Your task to perform on an android device: check android version Image 0: 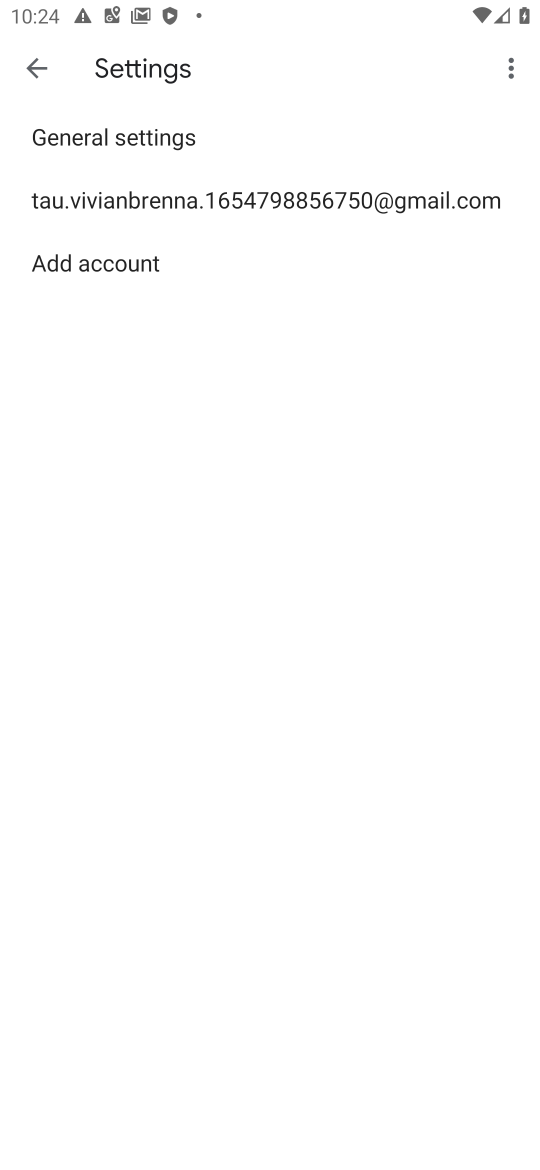
Step 0: press back button
Your task to perform on an android device: check android version Image 1: 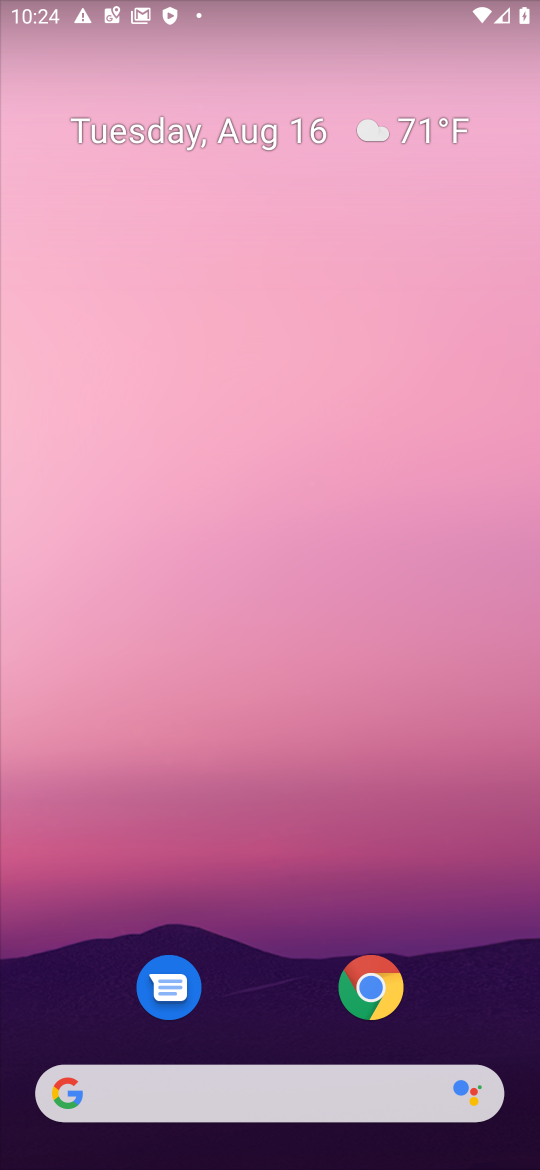
Step 1: drag from (49, 1136) to (238, 494)
Your task to perform on an android device: check android version Image 2: 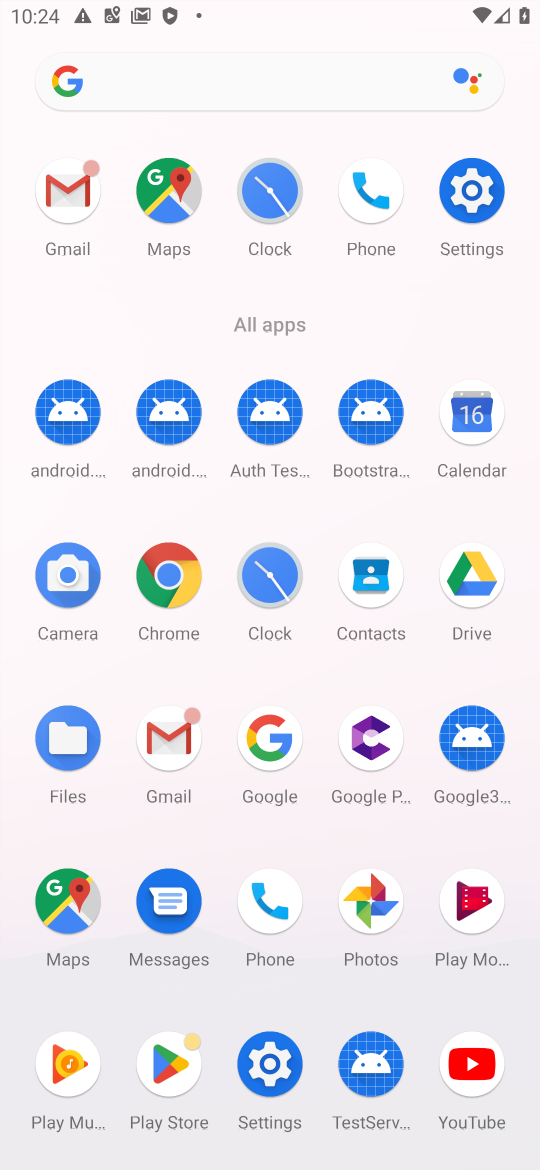
Step 2: click (266, 1060)
Your task to perform on an android device: check android version Image 3: 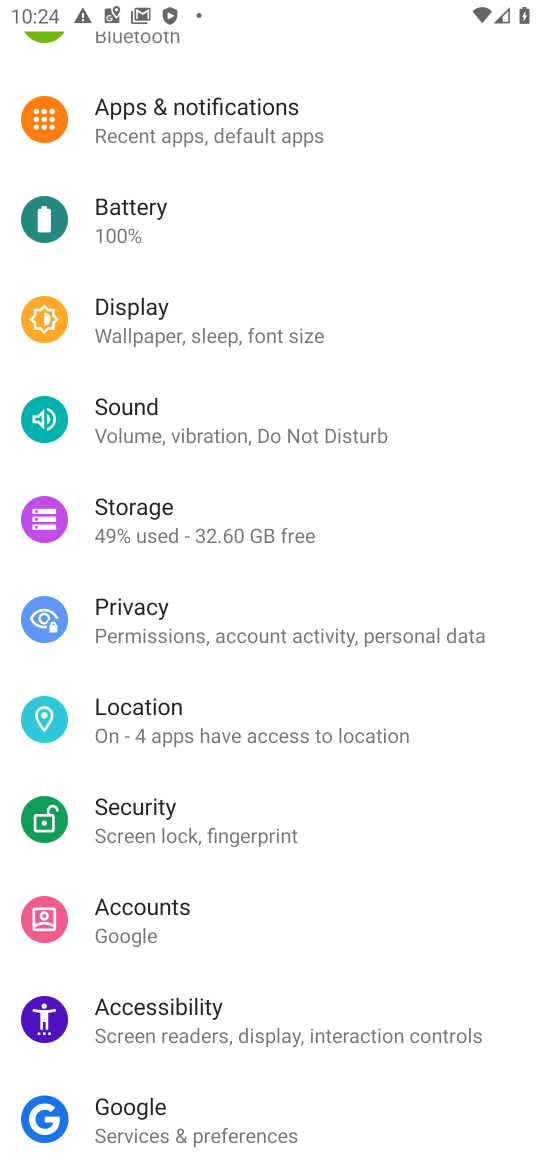
Step 3: drag from (454, 1109) to (478, 850)
Your task to perform on an android device: check android version Image 4: 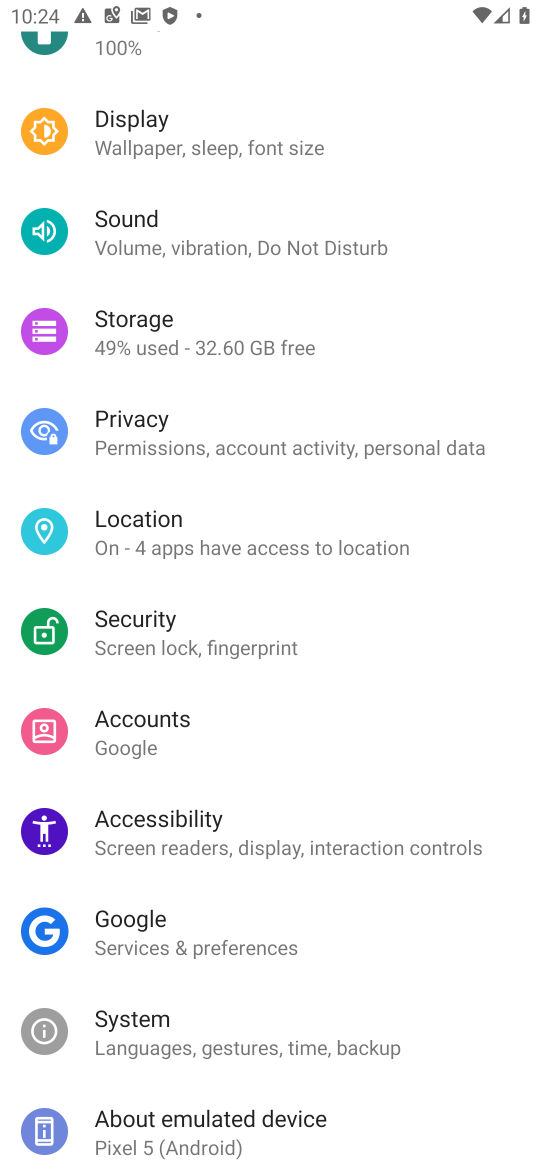
Step 4: drag from (415, 1120) to (508, 540)
Your task to perform on an android device: check android version Image 5: 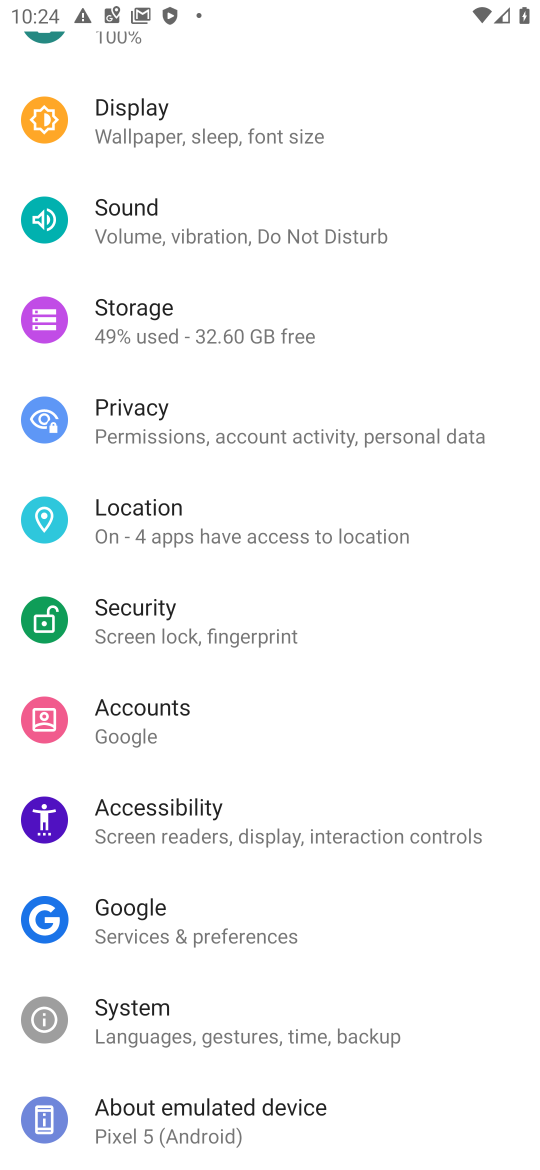
Step 5: click (118, 1122)
Your task to perform on an android device: check android version Image 6: 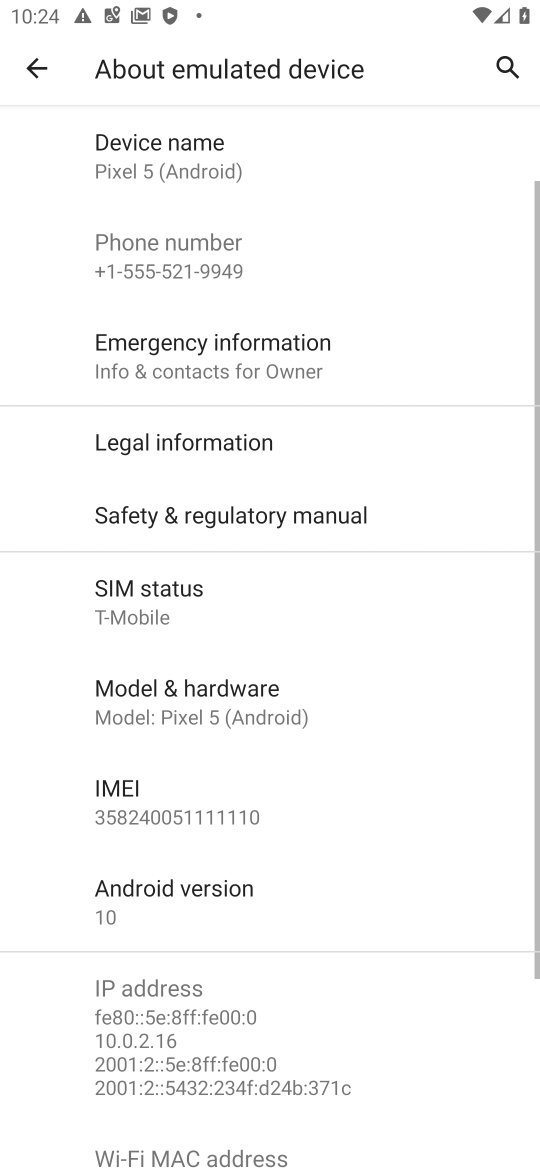
Step 6: task complete